Your task to perform on an android device: allow cookies in the chrome app Image 0: 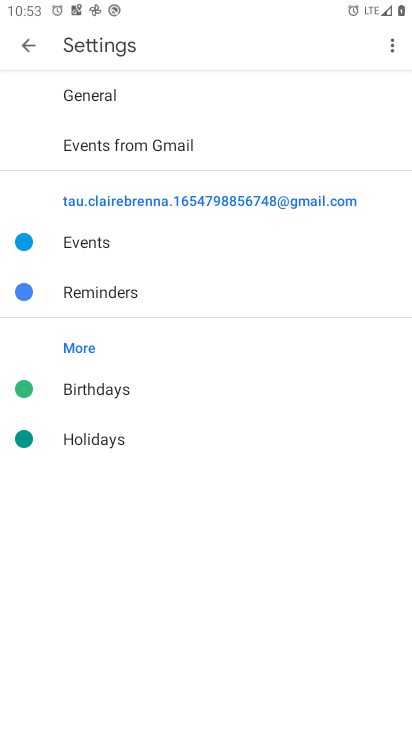
Step 0: press home button
Your task to perform on an android device: allow cookies in the chrome app Image 1: 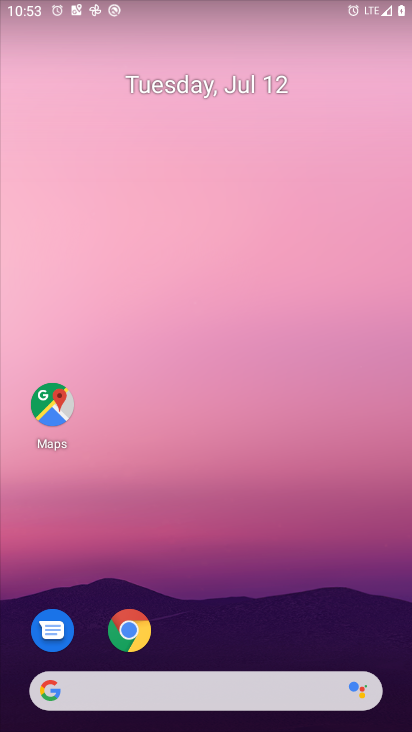
Step 1: press home button
Your task to perform on an android device: allow cookies in the chrome app Image 2: 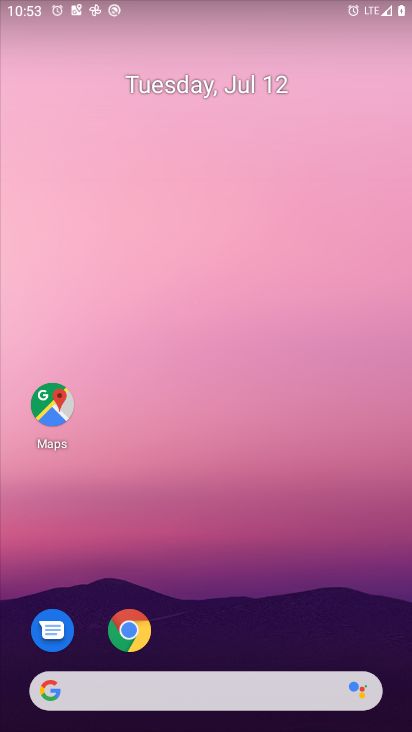
Step 2: drag from (221, 623) to (203, 15)
Your task to perform on an android device: allow cookies in the chrome app Image 3: 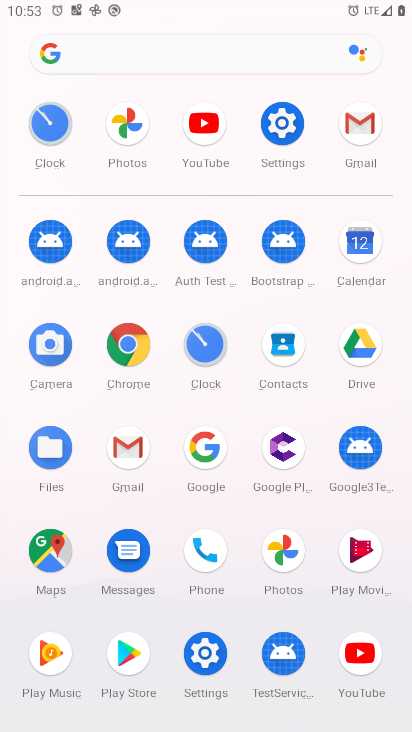
Step 3: click (132, 336)
Your task to perform on an android device: allow cookies in the chrome app Image 4: 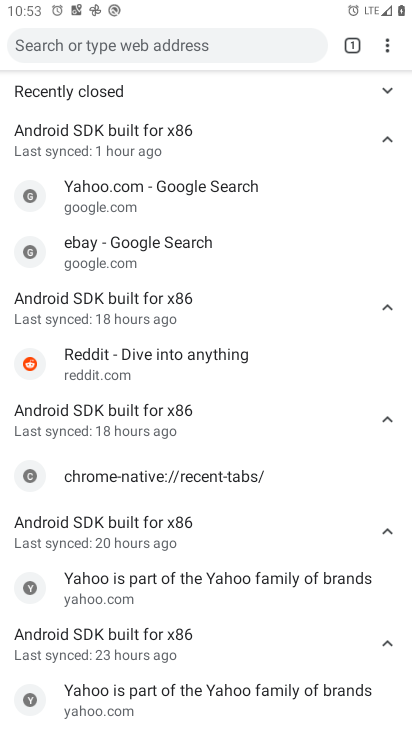
Step 4: drag from (385, 42) to (219, 381)
Your task to perform on an android device: allow cookies in the chrome app Image 5: 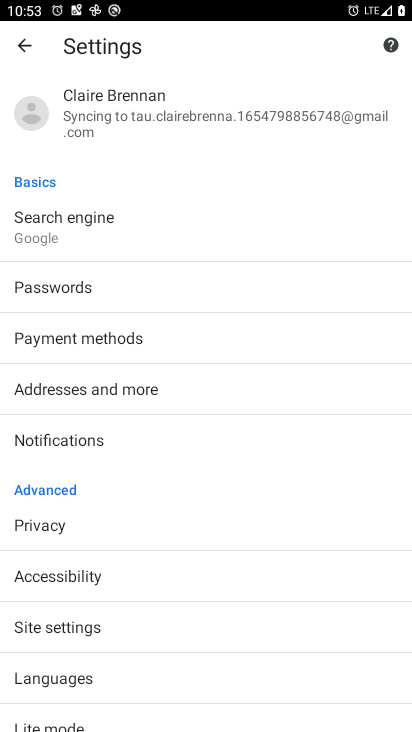
Step 5: click (67, 631)
Your task to perform on an android device: allow cookies in the chrome app Image 6: 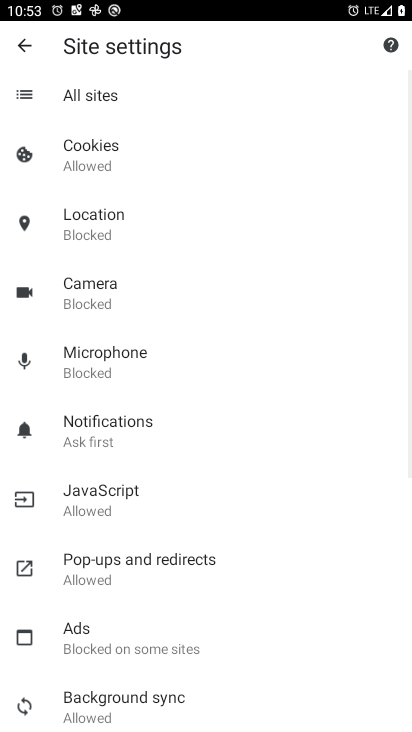
Step 6: click (103, 166)
Your task to perform on an android device: allow cookies in the chrome app Image 7: 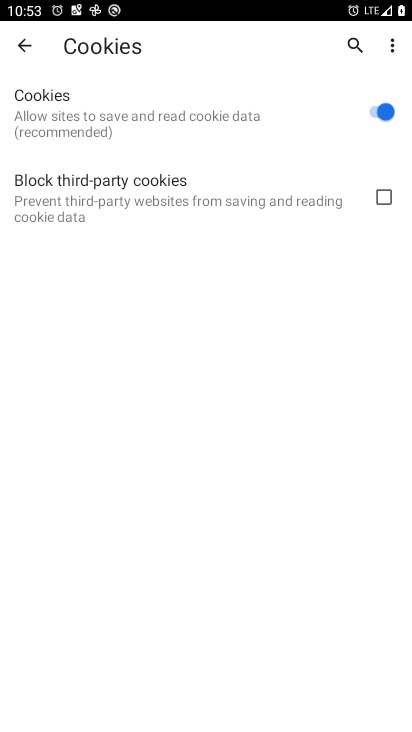
Step 7: task complete